Your task to perform on an android device: uninstall "Life360: Find Family & Friends" Image 0: 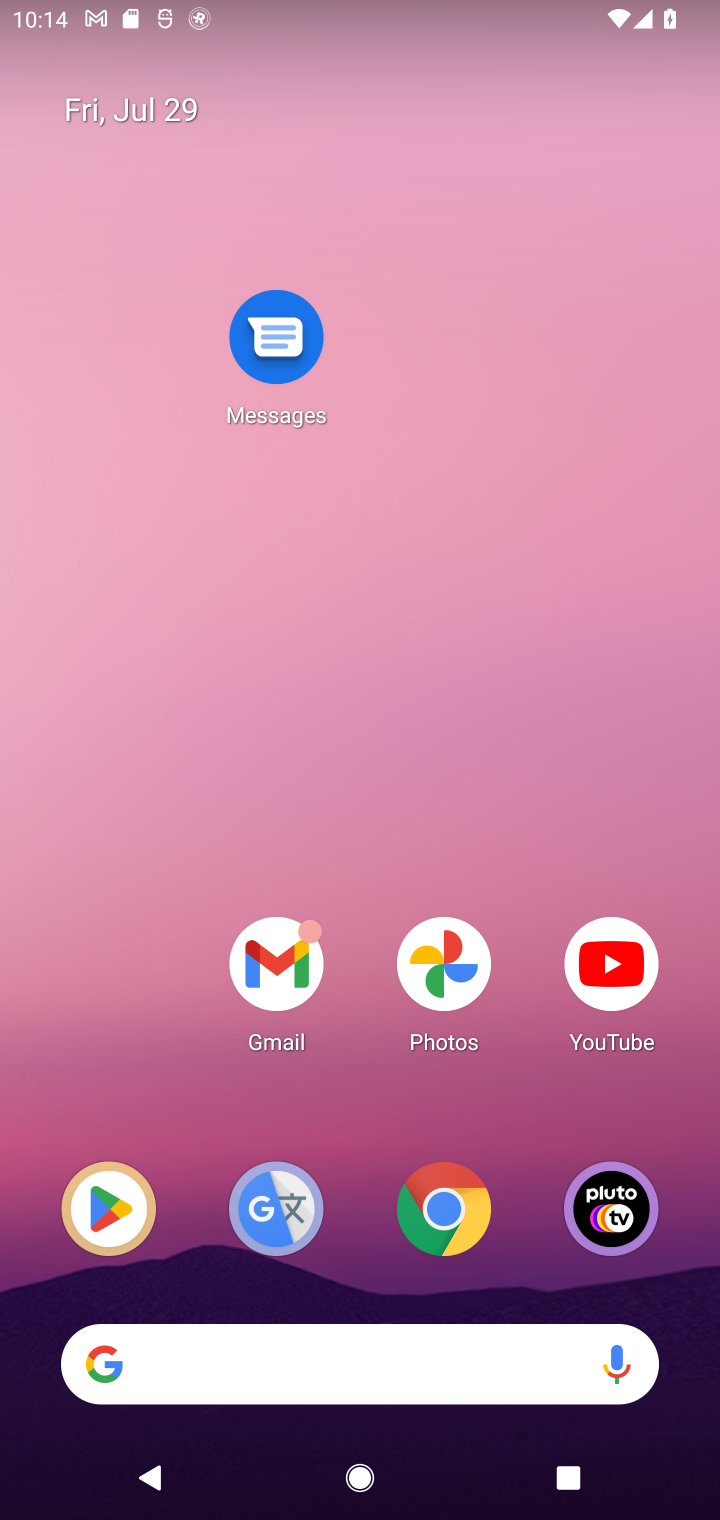
Step 0: press home button
Your task to perform on an android device: uninstall "Life360: Find Family & Friends" Image 1: 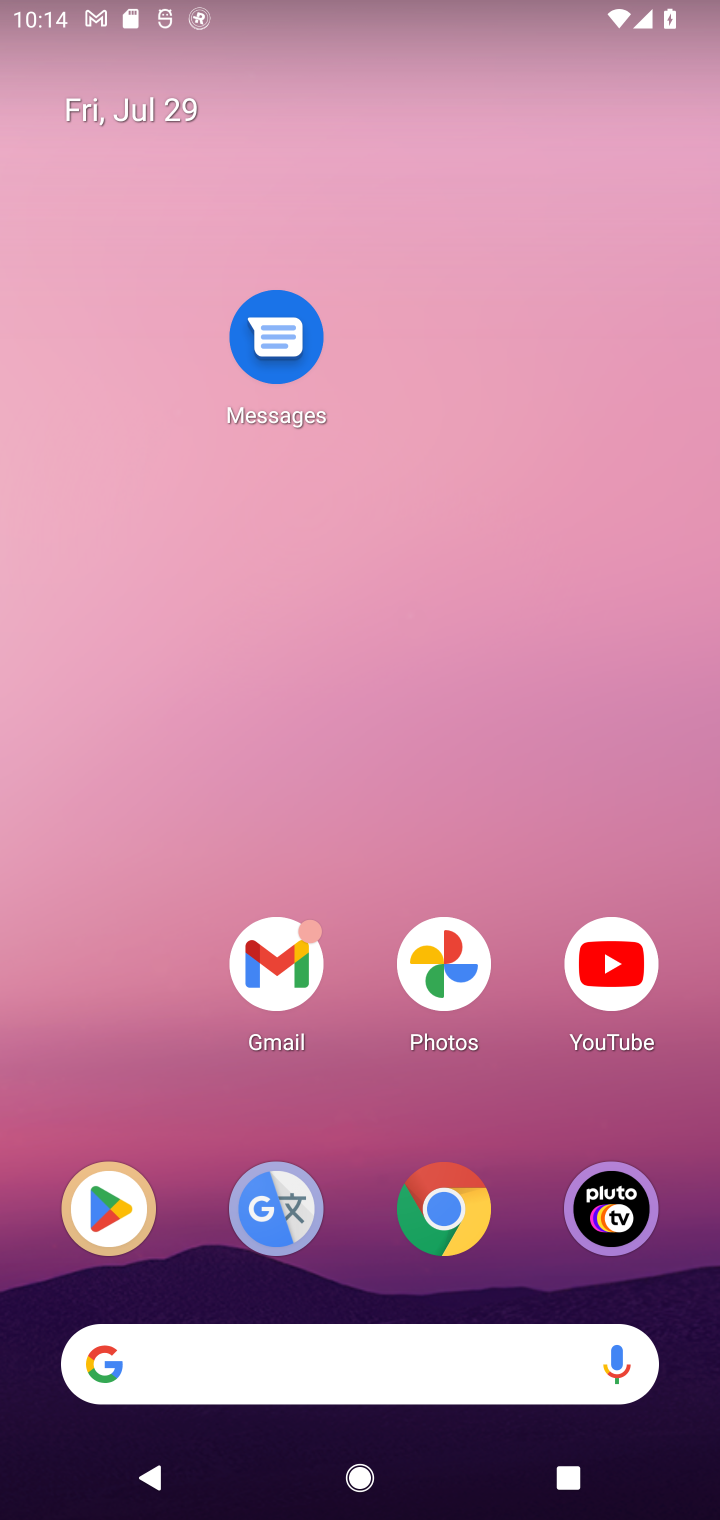
Step 1: drag from (238, 1374) to (338, 439)
Your task to perform on an android device: uninstall "Life360: Find Family & Friends" Image 2: 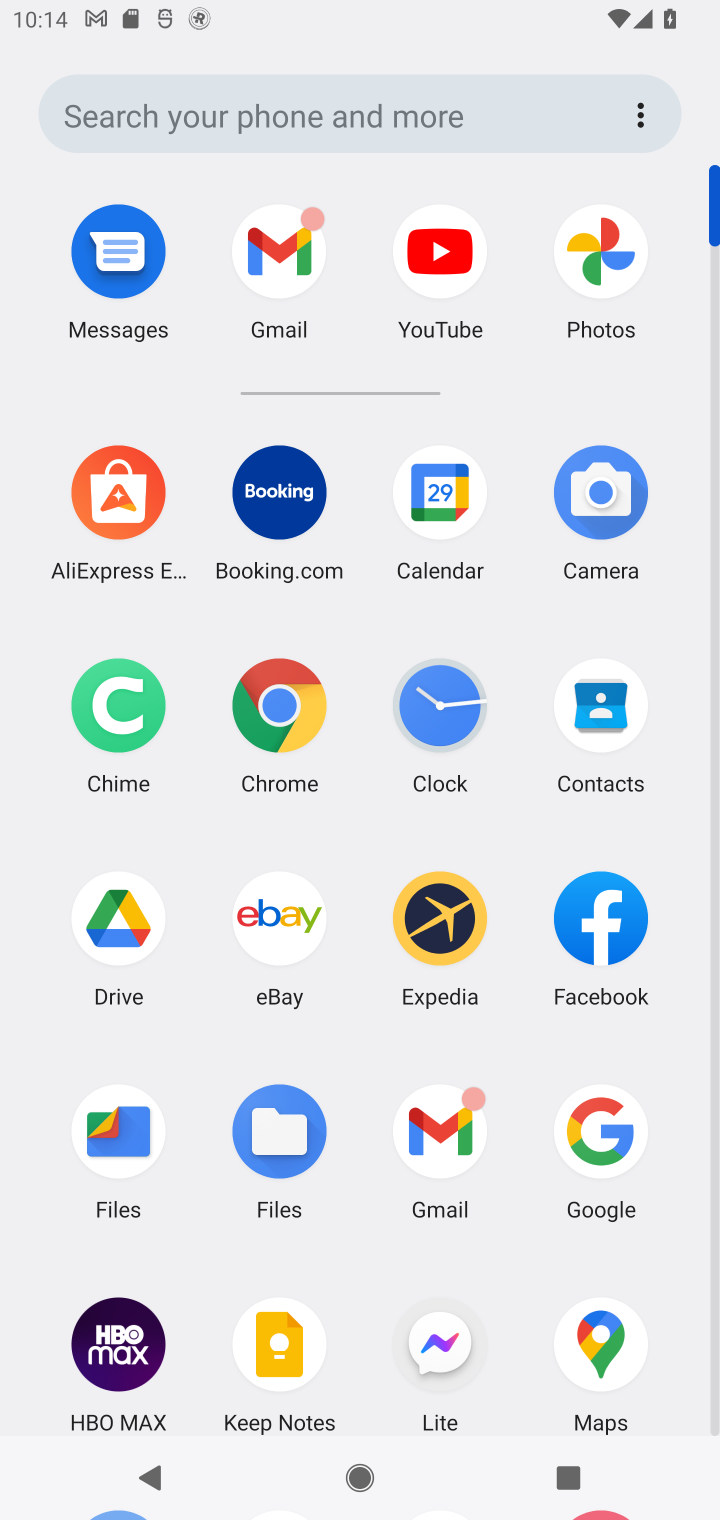
Step 2: drag from (367, 1255) to (370, 734)
Your task to perform on an android device: uninstall "Life360: Find Family & Friends" Image 3: 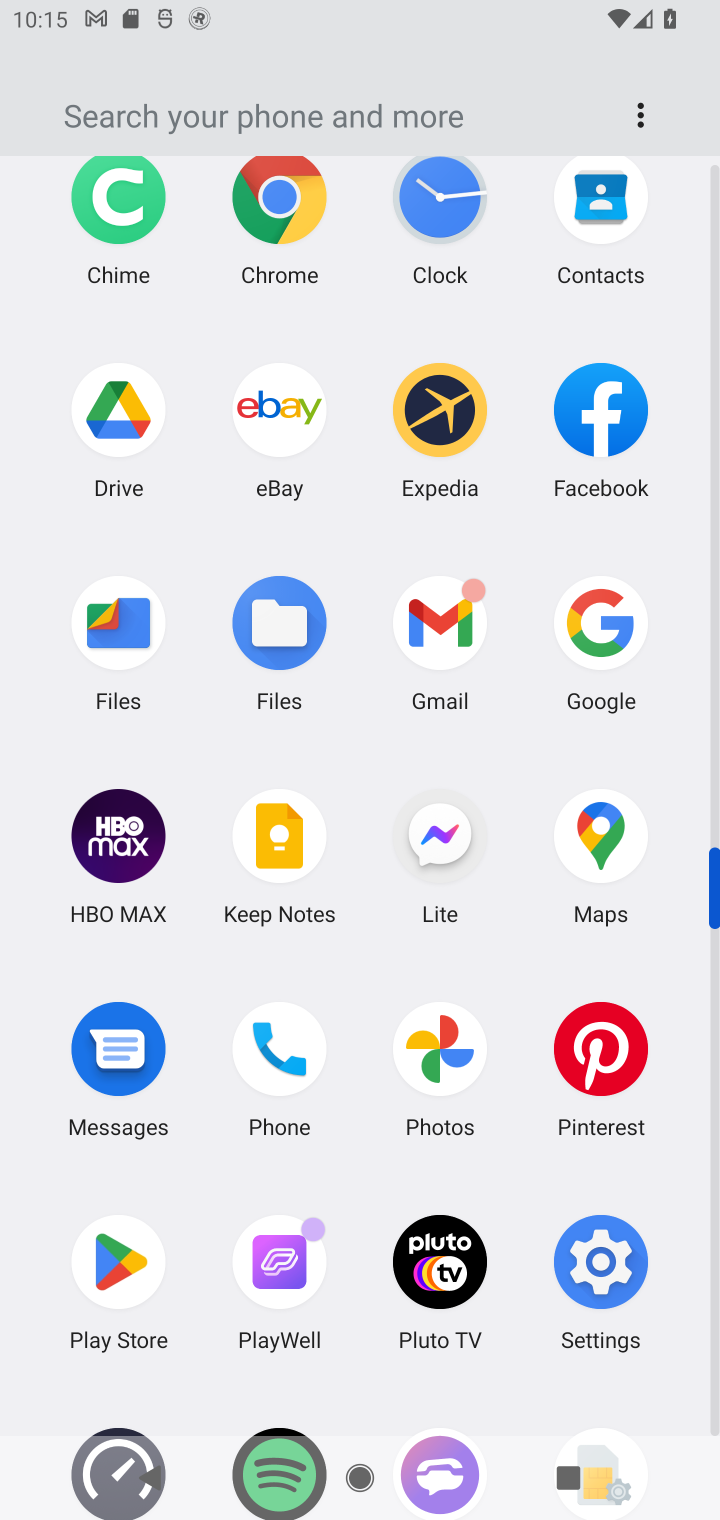
Step 3: click (122, 1295)
Your task to perform on an android device: uninstall "Life360: Find Family & Friends" Image 4: 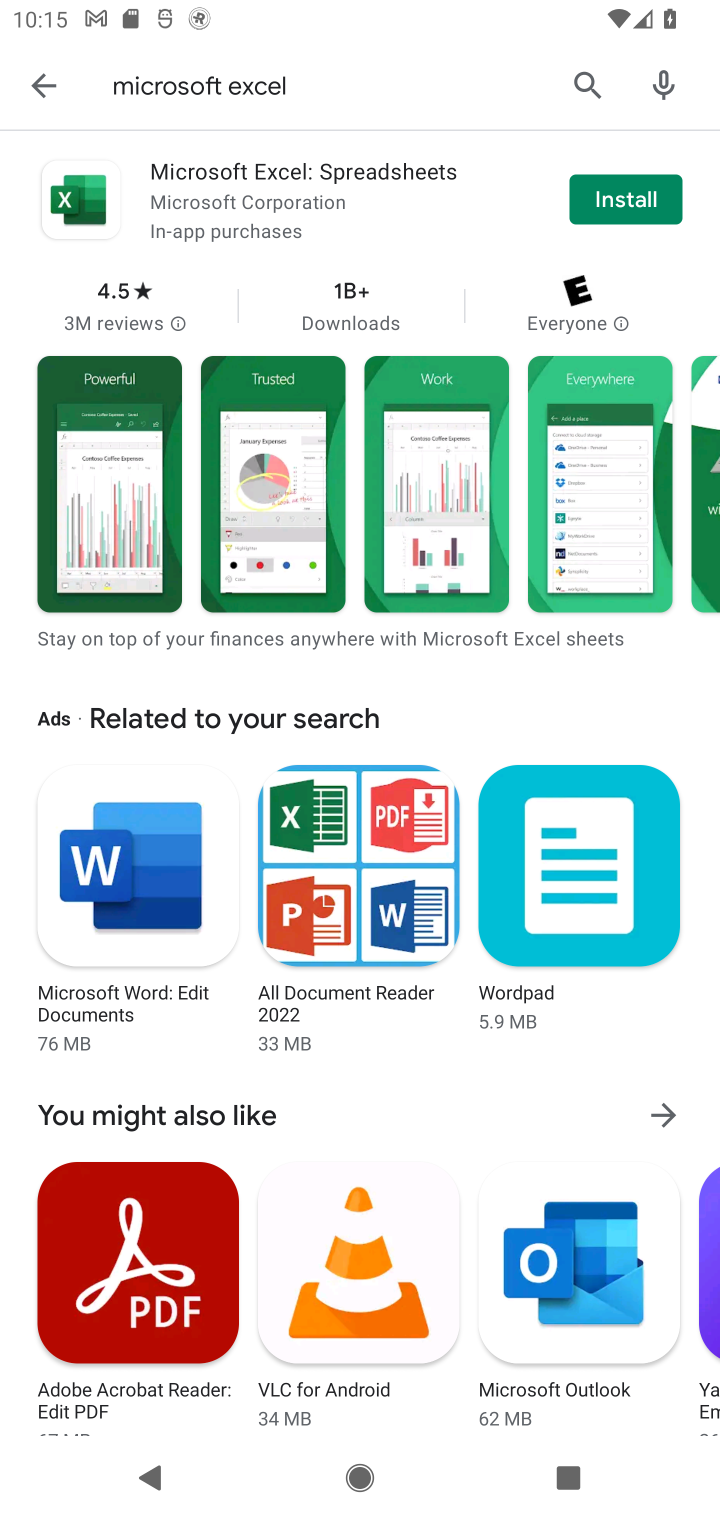
Step 4: click (534, 91)
Your task to perform on an android device: uninstall "Life360: Find Family & Friends" Image 5: 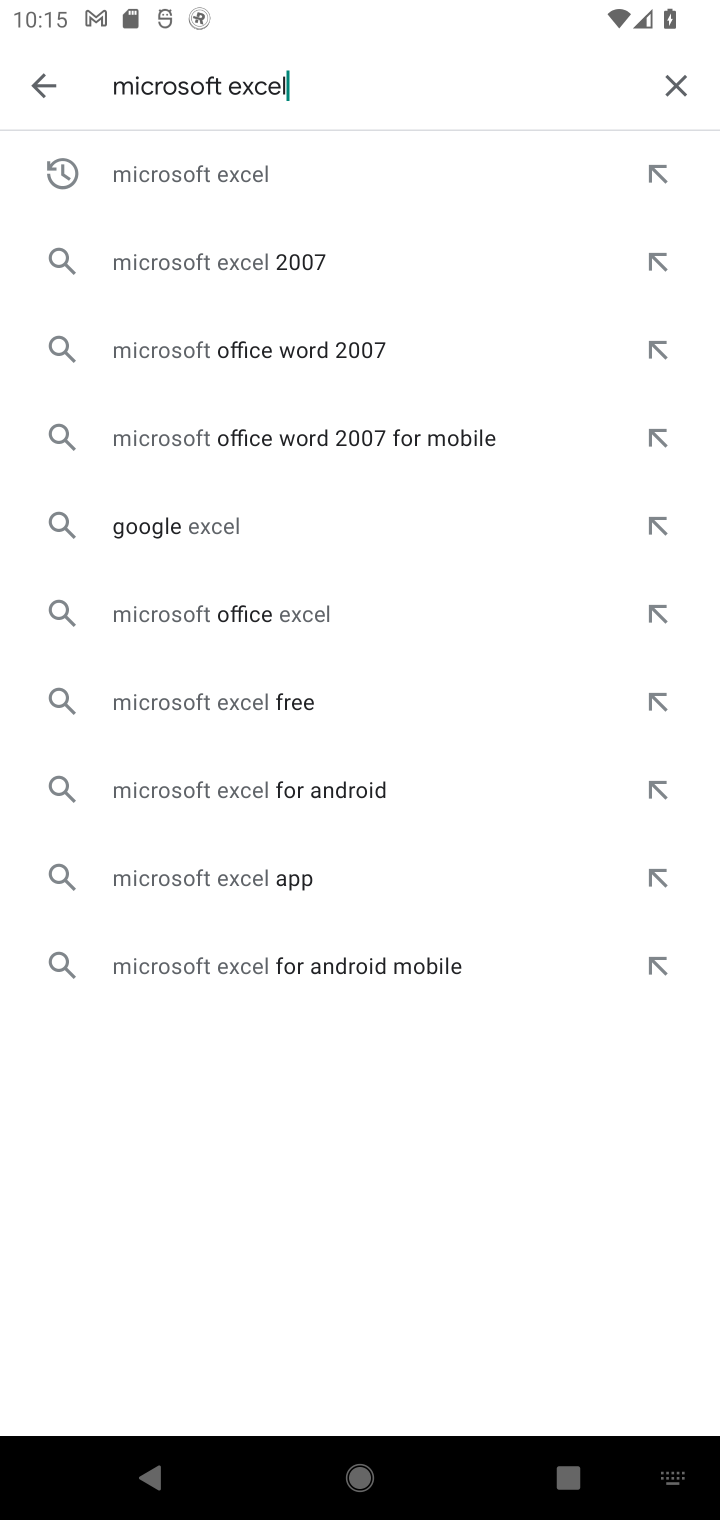
Step 5: click (685, 86)
Your task to perform on an android device: uninstall "Life360: Find Family & Friends" Image 6: 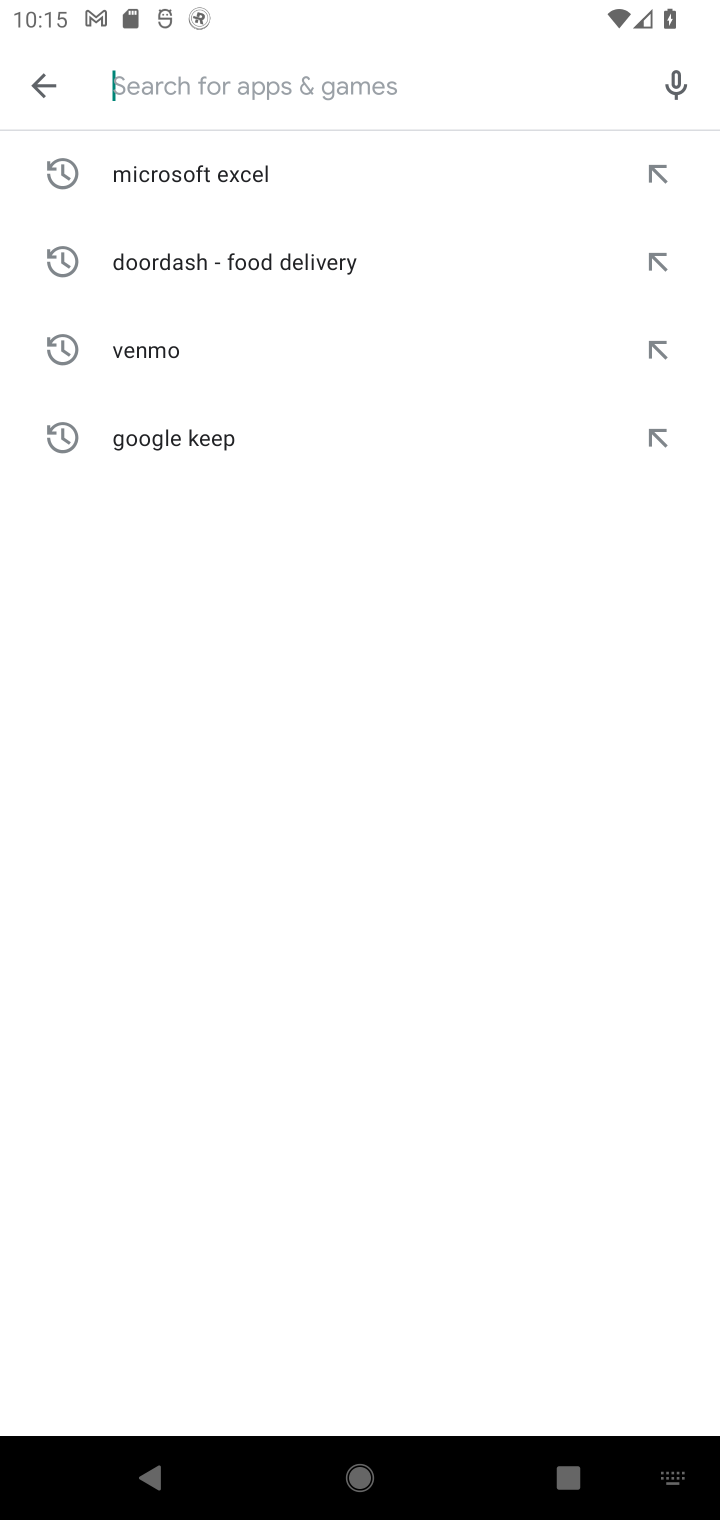
Step 6: type "Life360: Find Family & Friends"
Your task to perform on an android device: uninstall "Life360: Find Family & Friends" Image 7: 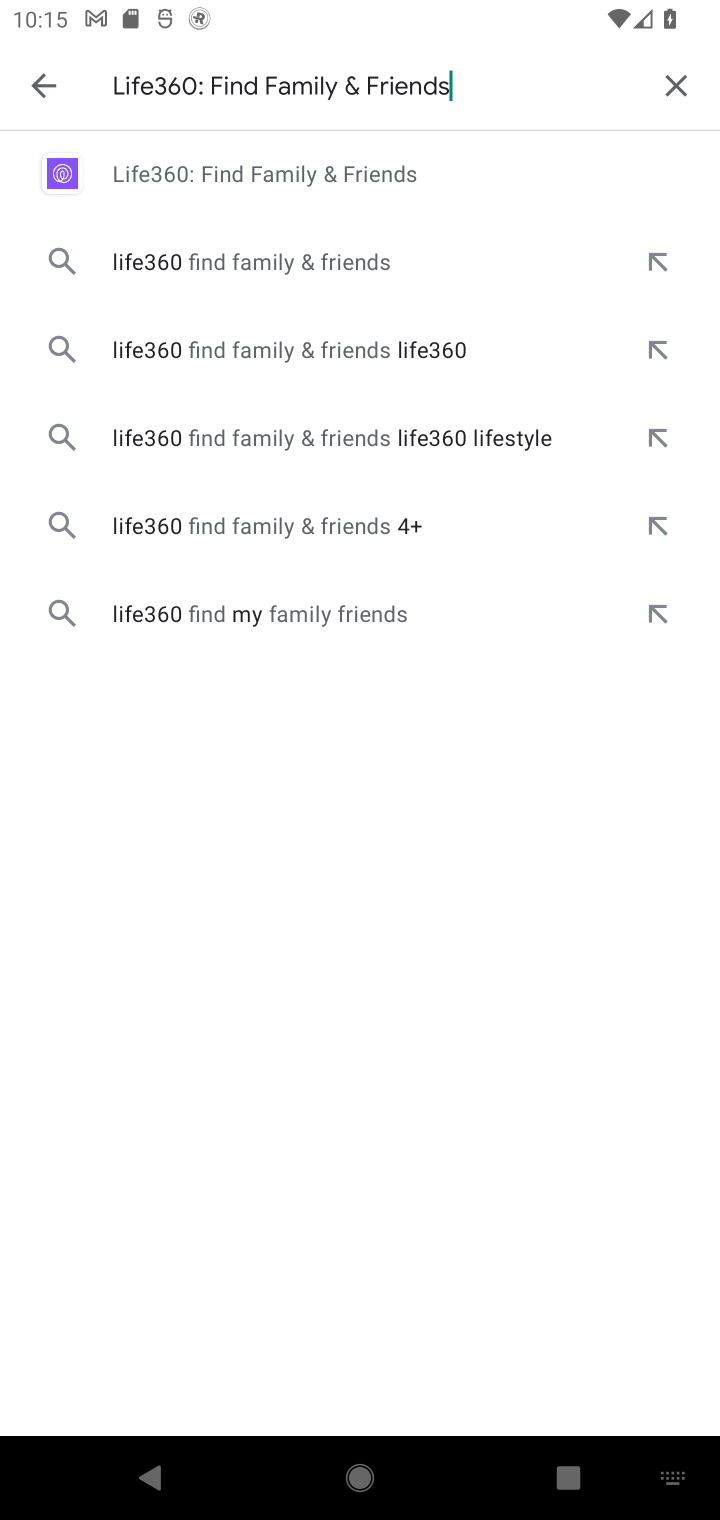
Step 7: click (359, 171)
Your task to perform on an android device: uninstall "Life360: Find Family & Friends" Image 8: 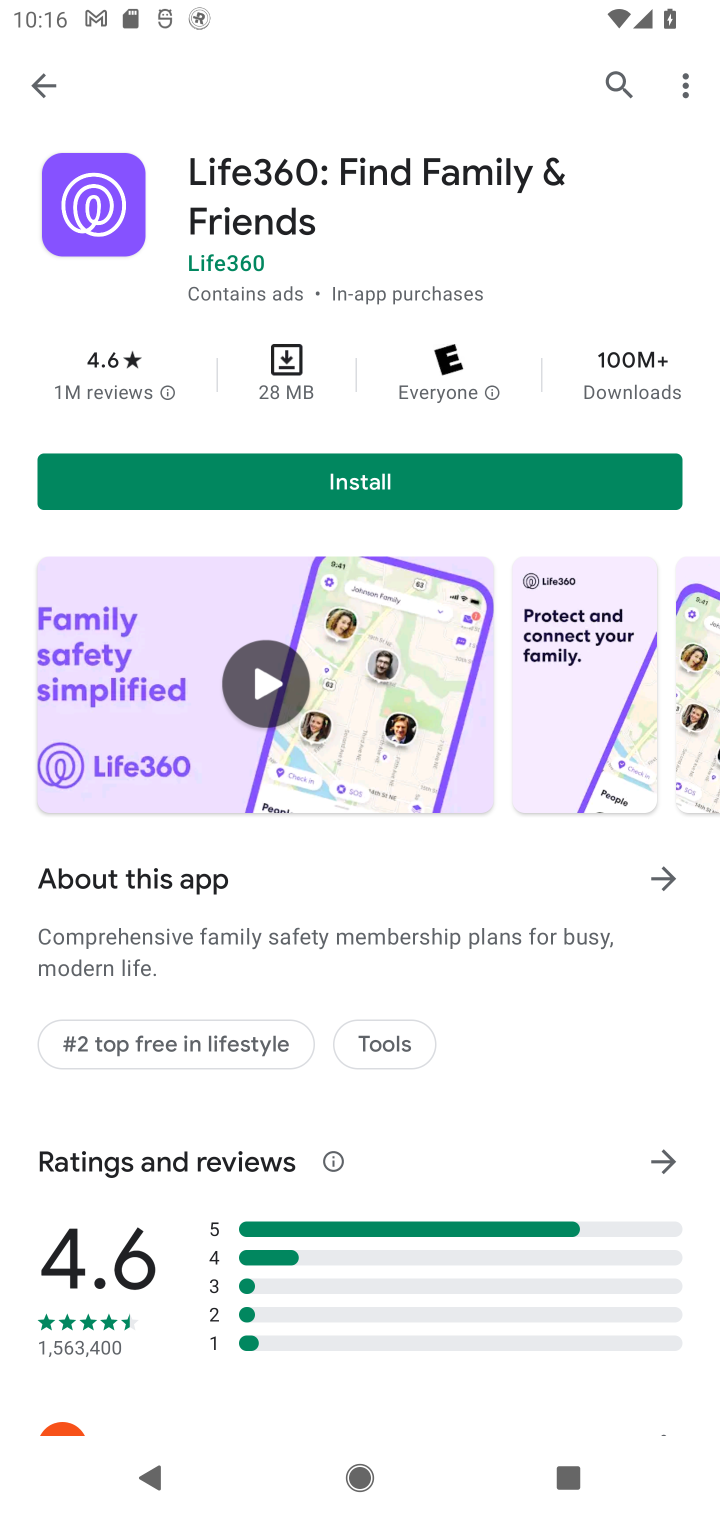
Step 8: task complete